Your task to perform on an android device: Open notification settings Image 0: 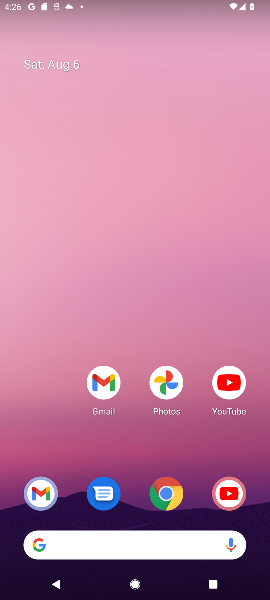
Step 0: drag from (162, 530) to (106, 98)
Your task to perform on an android device: Open notification settings Image 1: 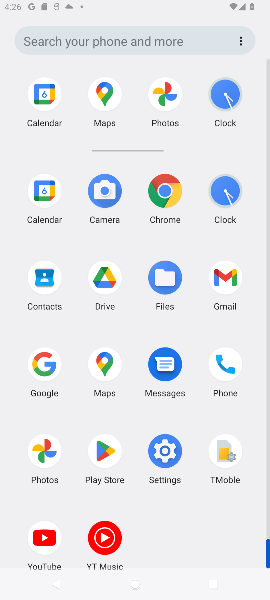
Step 1: drag from (129, 417) to (125, 190)
Your task to perform on an android device: Open notification settings Image 2: 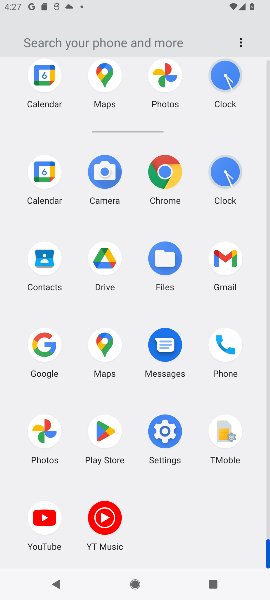
Step 2: click (167, 439)
Your task to perform on an android device: Open notification settings Image 3: 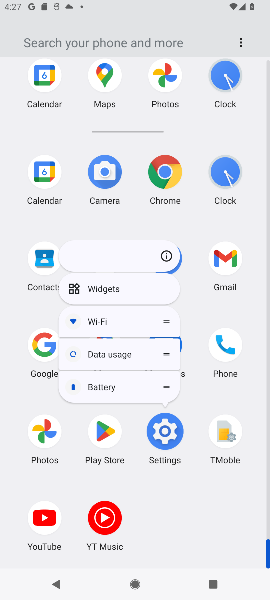
Step 3: click (167, 439)
Your task to perform on an android device: Open notification settings Image 4: 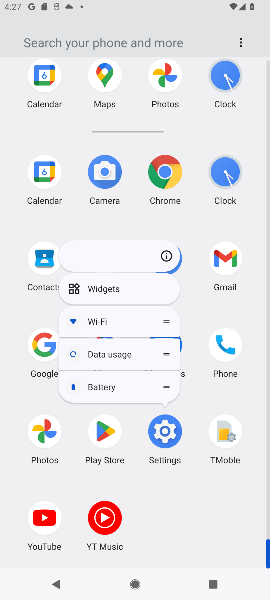
Step 4: click (167, 438)
Your task to perform on an android device: Open notification settings Image 5: 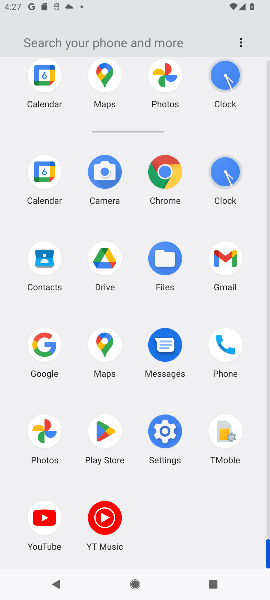
Step 5: click (169, 436)
Your task to perform on an android device: Open notification settings Image 6: 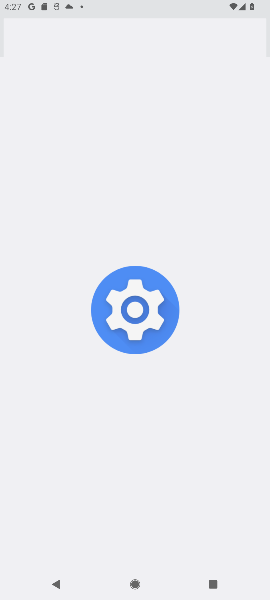
Step 6: click (169, 436)
Your task to perform on an android device: Open notification settings Image 7: 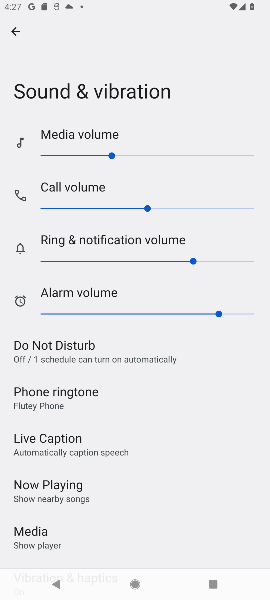
Step 7: click (10, 24)
Your task to perform on an android device: Open notification settings Image 8: 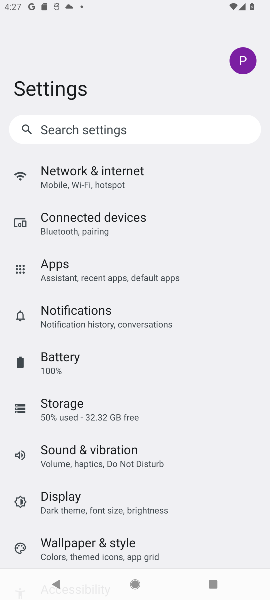
Step 8: click (80, 323)
Your task to perform on an android device: Open notification settings Image 9: 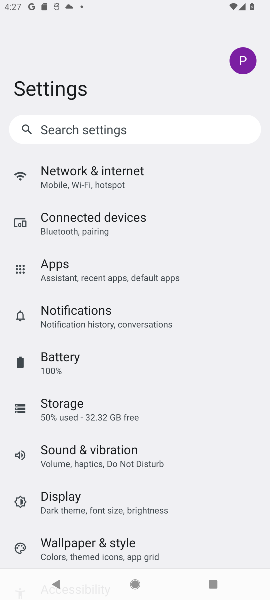
Step 9: click (77, 325)
Your task to perform on an android device: Open notification settings Image 10: 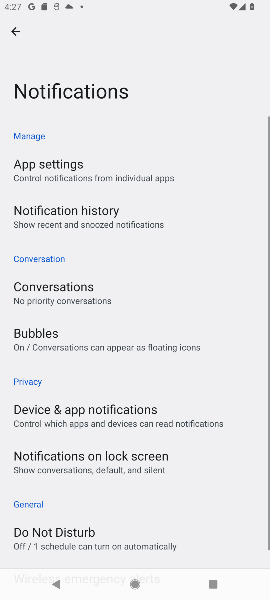
Step 10: click (77, 325)
Your task to perform on an android device: Open notification settings Image 11: 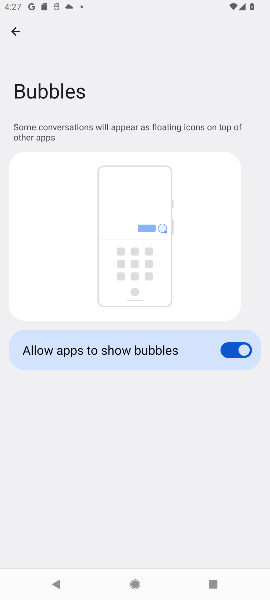
Step 11: click (9, 30)
Your task to perform on an android device: Open notification settings Image 12: 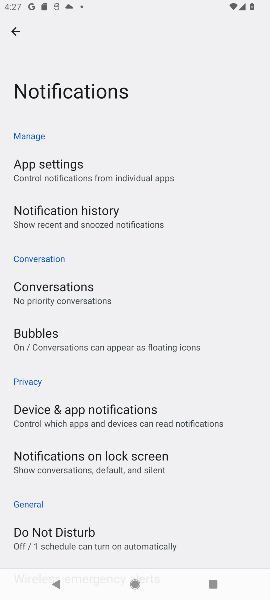
Step 12: task complete